Your task to perform on an android device: What's the weather going to be tomorrow? Image 0: 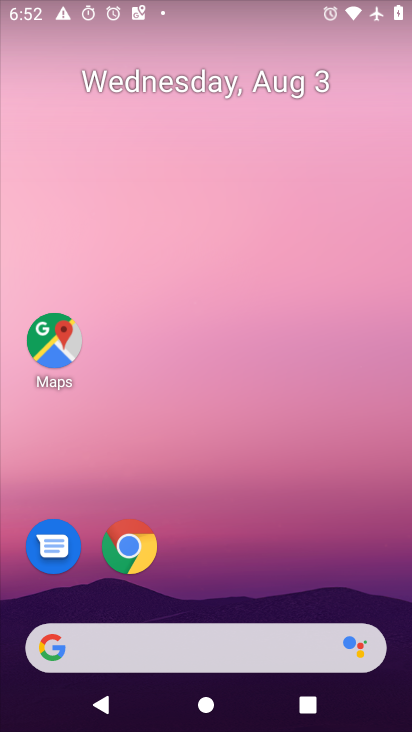
Step 0: click (43, 655)
Your task to perform on an android device: What's the weather going to be tomorrow? Image 1: 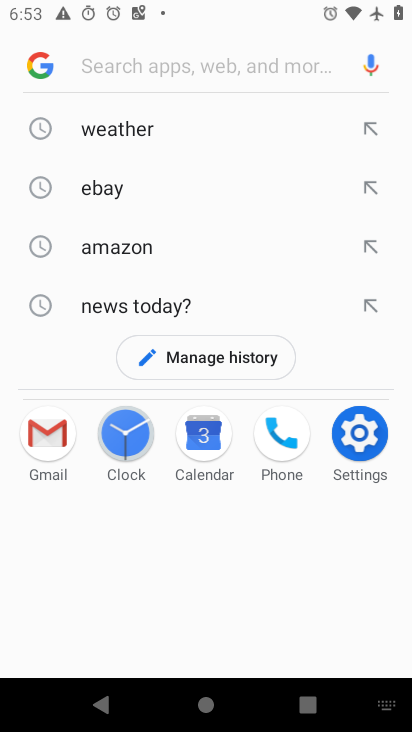
Step 1: type "weather going to be tomorrow?"
Your task to perform on an android device: What's the weather going to be tomorrow? Image 2: 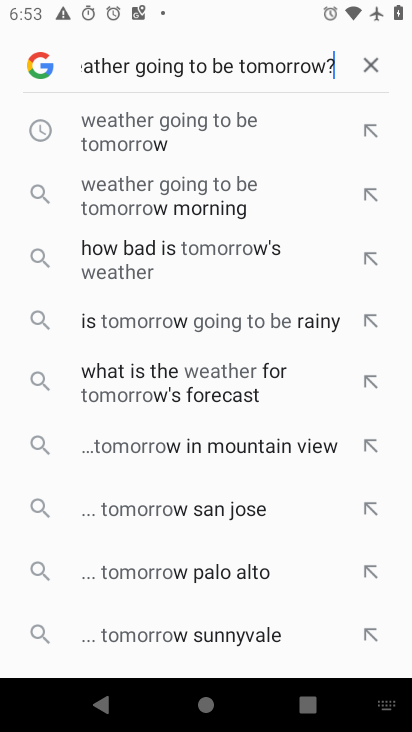
Step 2: press enter
Your task to perform on an android device: What's the weather going to be tomorrow? Image 3: 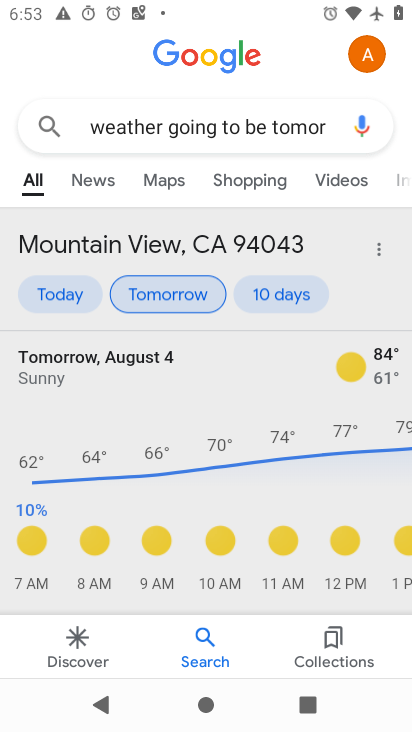
Step 3: task complete